Your task to perform on an android device: Is it going to rain this weekend? Image 0: 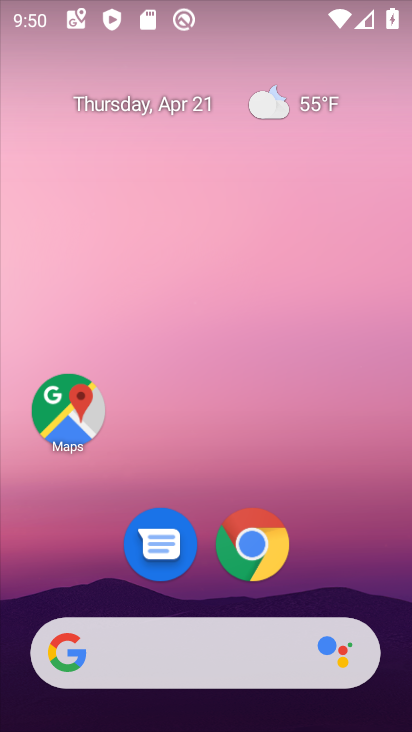
Step 0: drag from (315, 533) to (211, 0)
Your task to perform on an android device: Is it going to rain this weekend? Image 1: 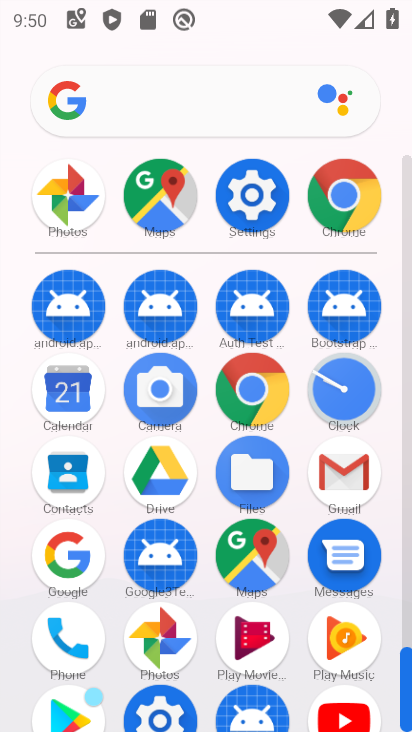
Step 1: click (147, 104)
Your task to perform on an android device: Is it going to rain this weekend? Image 2: 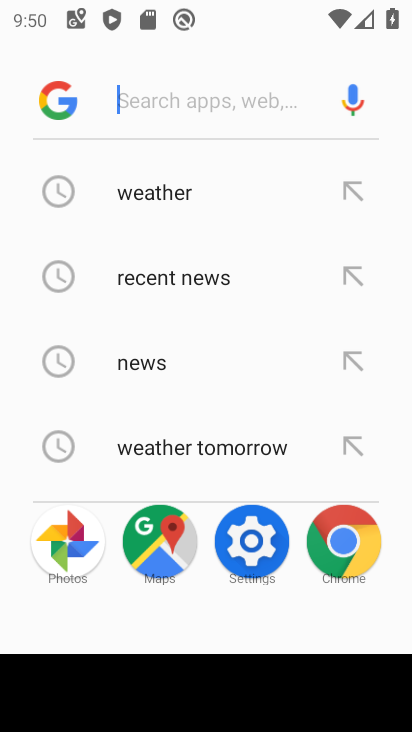
Step 2: click (179, 196)
Your task to perform on an android device: Is it going to rain this weekend? Image 3: 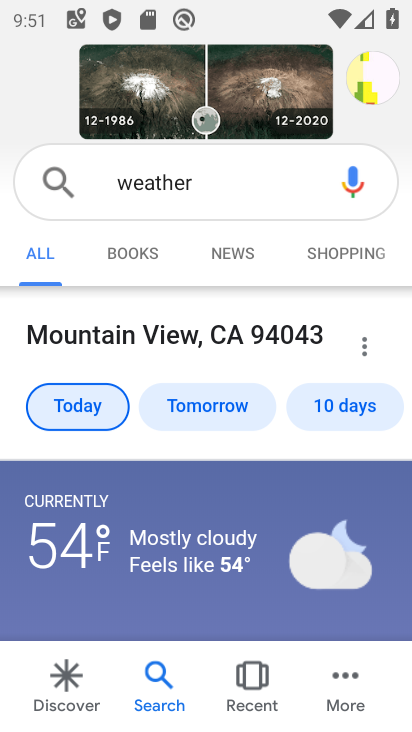
Step 3: click (333, 402)
Your task to perform on an android device: Is it going to rain this weekend? Image 4: 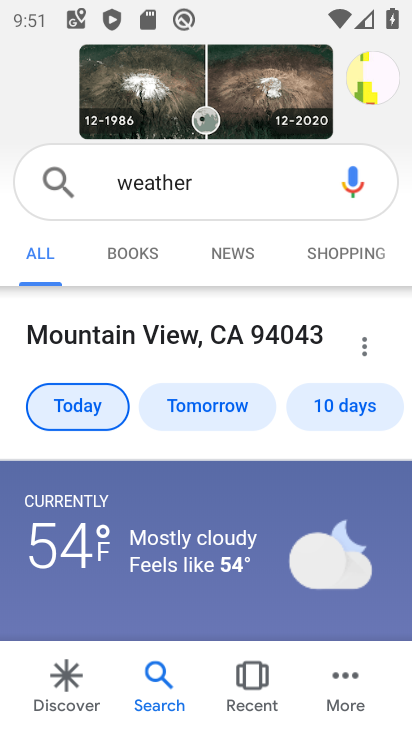
Step 4: click (240, 184)
Your task to perform on an android device: Is it going to rain this weekend? Image 5: 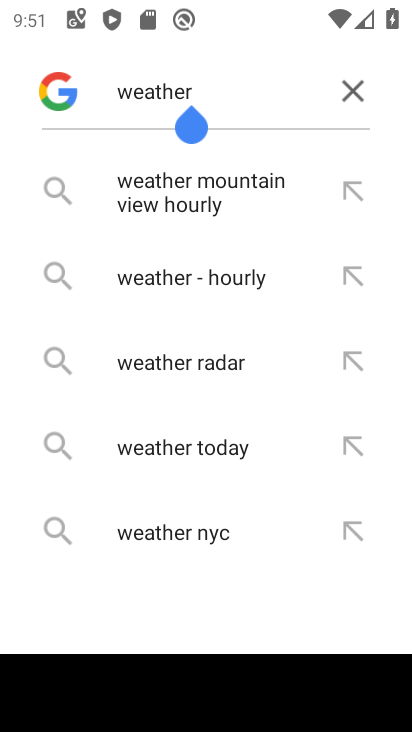
Step 5: click (365, 78)
Your task to perform on an android device: Is it going to rain this weekend? Image 6: 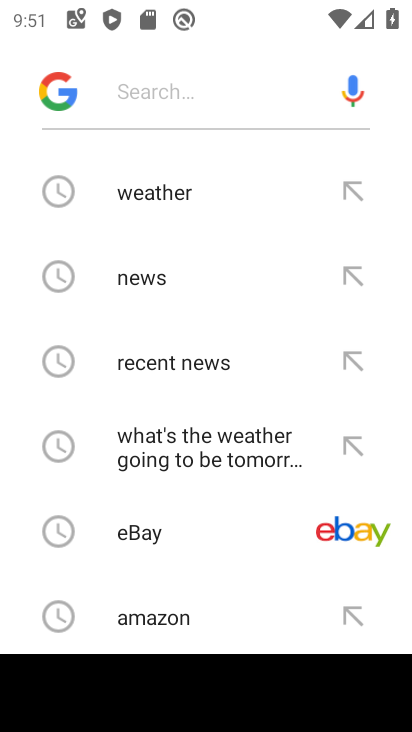
Step 6: type "Is it going to rain this weekend?"
Your task to perform on an android device: Is it going to rain this weekend? Image 7: 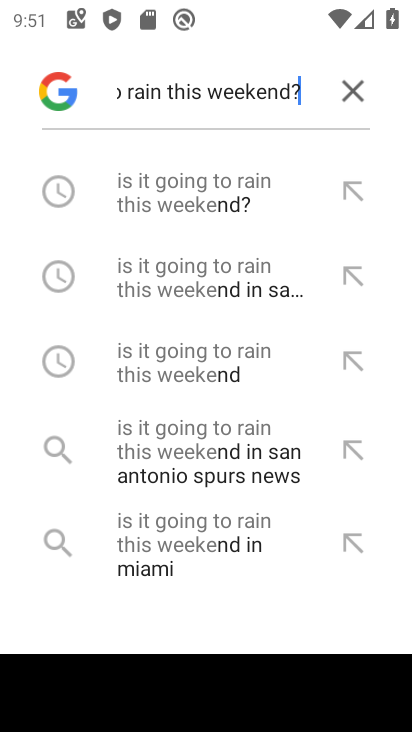
Step 7: type ""
Your task to perform on an android device: Is it going to rain this weekend? Image 8: 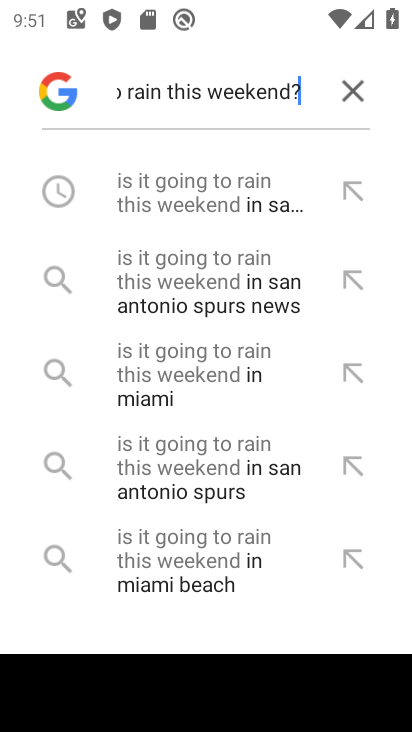
Step 8: click (168, 199)
Your task to perform on an android device: Is it going to rain this weekend? Image 9: 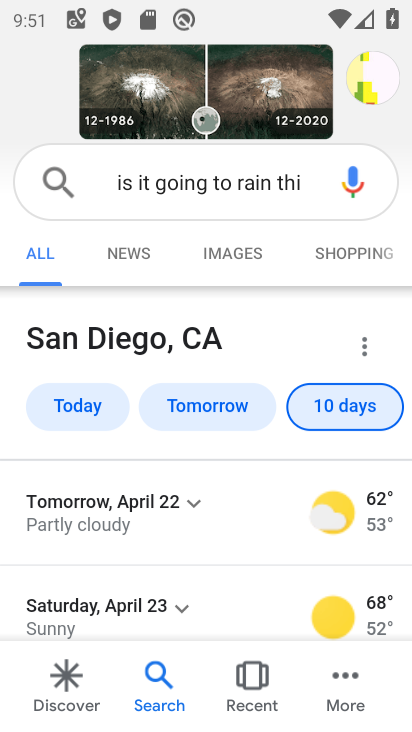
Step 9: task complete